Your task to perform on an android device: Add apple airpods to the cart on ebay, then select checkout. Image 0: 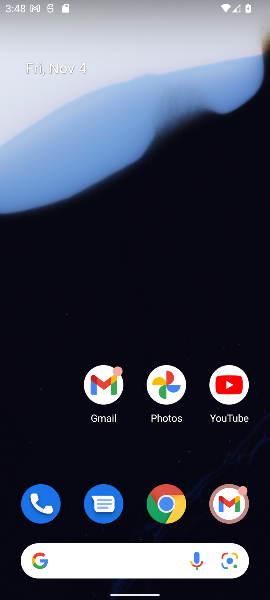
Step 0: click (167, 510)
Your task to perform on an android device: Add apple airpods to the cart on ebay, then select checkout. Image 1: 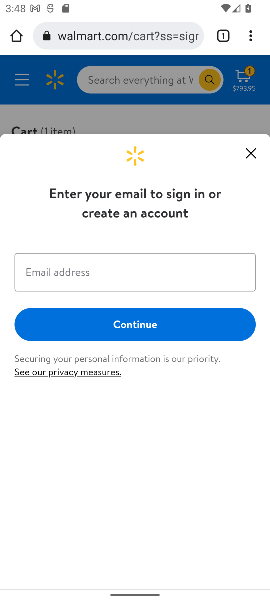
Step 1: click (108, 34)
Your task to perform on an android device: Add apple airpods to the cart on ebay, then select checkout. Image 2: 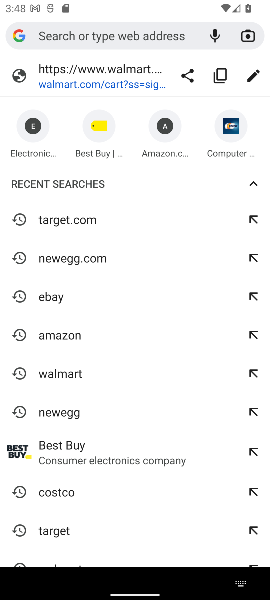
Step 2: click (43, 302)
Your task to perform on an android device: Add apple airpods to the cart on ebay, then select checkout. Image 3: 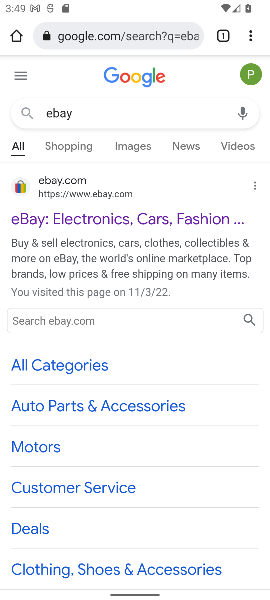
Step 3: click (88, 226)
Your task to perform on an android device: Add apple airpods to the cart on ebay, then select checkout. Image 4: 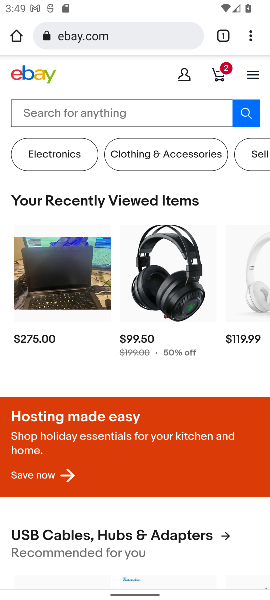
Step 4: click (96, 114)
Your task to perform on an android device: Add apple airpods to the cart on ebay, then select checkout. Image 5: 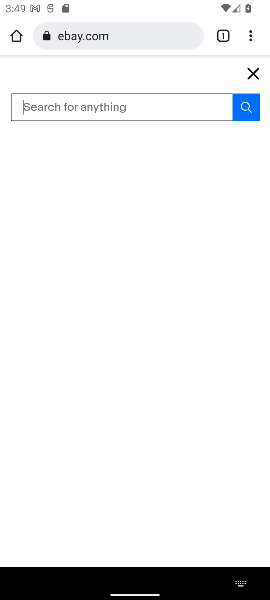
Step 5: type "apple airpods"
Your task to perform on an android device: Add apple airpods to the cart on ebay, then select checkout. Image 6: 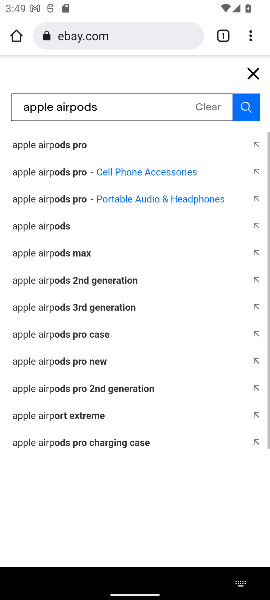
Step 6: click (42, 231)
Your task to perform on an android device: Add apple airpods to the cart on ebay, then select checkout. Image 7: 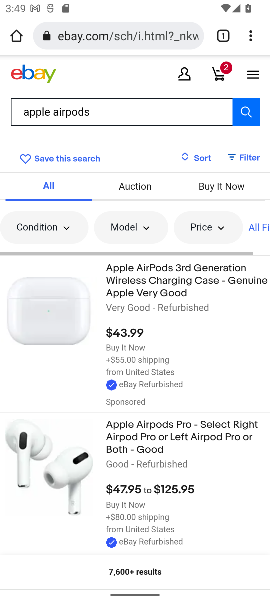
Step 7: click (111, 322)
Your task to perform on an android device: Add apple airpods to the cart on ebay, then select checkout. Image 8: 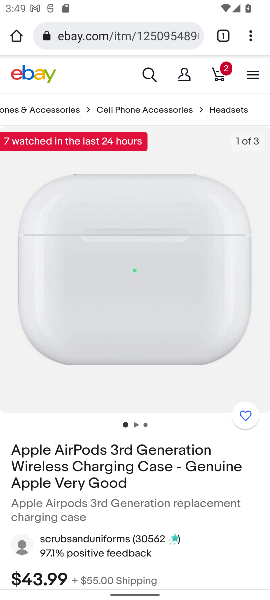
Step 8: drag from (151, 481) to (142, 296)
Your task to perform on an android device: Add apple airpods to the cart on ebay, then select checkout. Image 9: 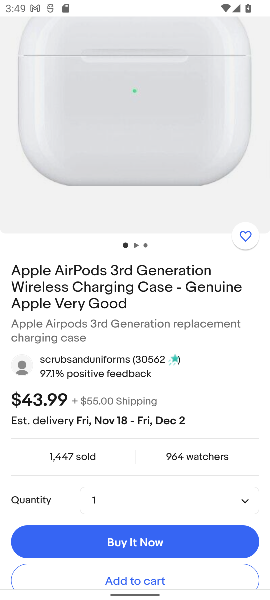
Step 9: drag from (123, 442) to (145, 276)
Your task to perform on an android device: Add apple airpods to the cart on ebay, then select checkout. Image 10: 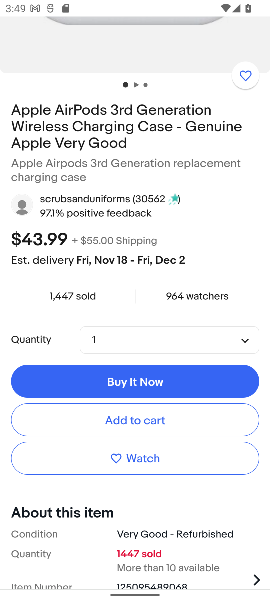
Step 10: click (115, 420)
Your task to perform on an android device: Add apple airpods to the cart on ebay, then select checkout. Image 11: 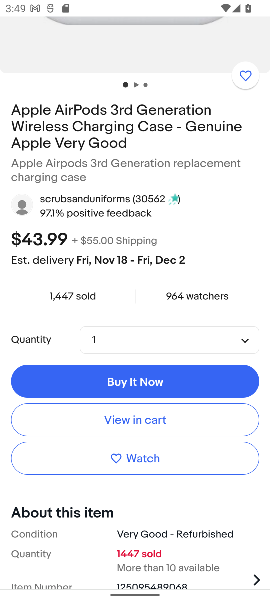
Step 11: click (114, 420)
Your task to perform on an android device: Add apple airpods to the cart on ebay, then select checkout. Image 12: 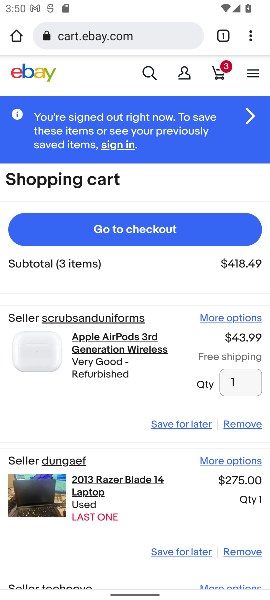
Step 12: click (120, 231)
Your task to perform on an android device: Add apple airpods to the cart on ebay, then select checkout. Image 13: 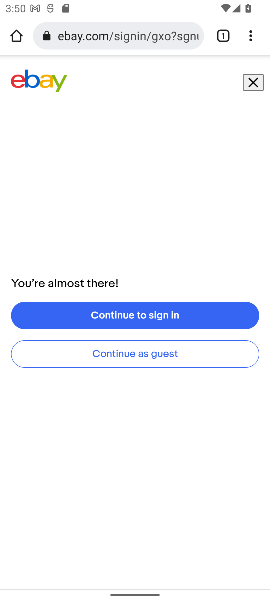
Step 13: task complete